Your task to perform on an android device: Open the Play Movies app and select the watchlist tab. Image 0: 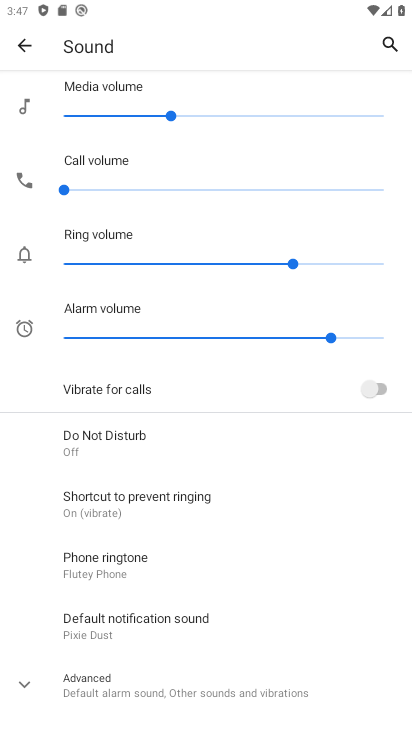
Step 0: drag from (205, 639) to (255, 320)
Your task to perform on an android device: Open the Play Movies app and select the watchlist tab. Image 1: 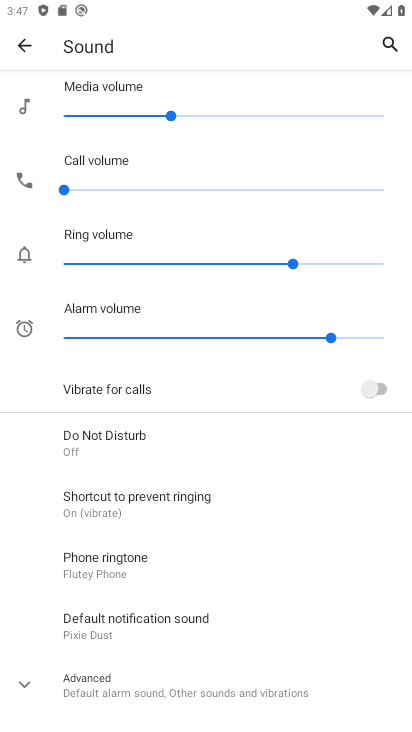
Step 1: press home button
Your task to perform on an android device: Open the Play Movies app and select the watchlist tab. Image 2: 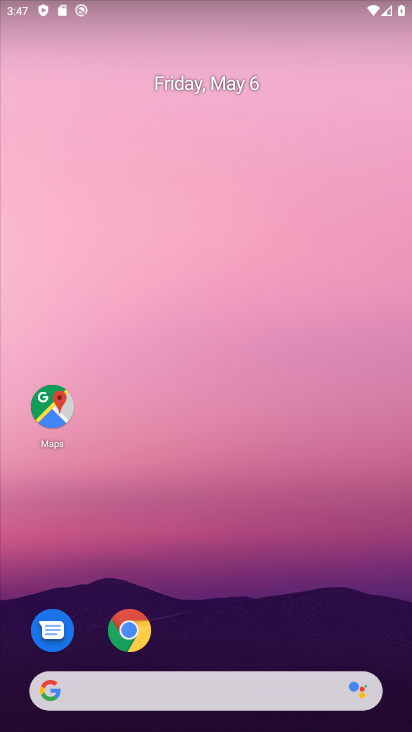
Step 2: drag from (219, 643) to (291, 117)
Your task to perform on an android device: Open the Play Movies app and select the watchlist tab. Image 3: 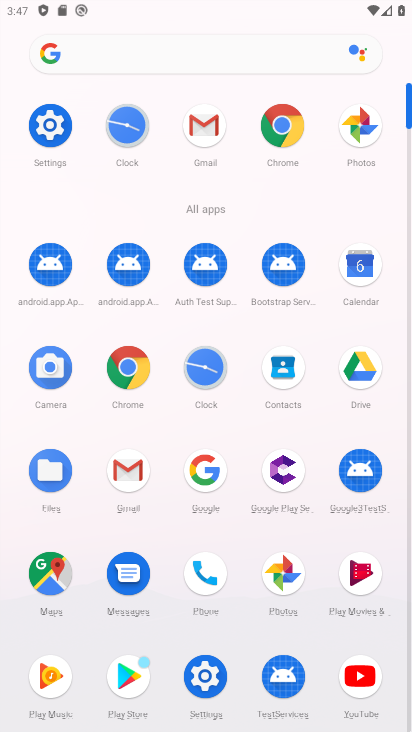
Step 3: click (359, 581)
Your task to perform on an android device: Open the Play Movies app and select the watchlist tab. Image 4: 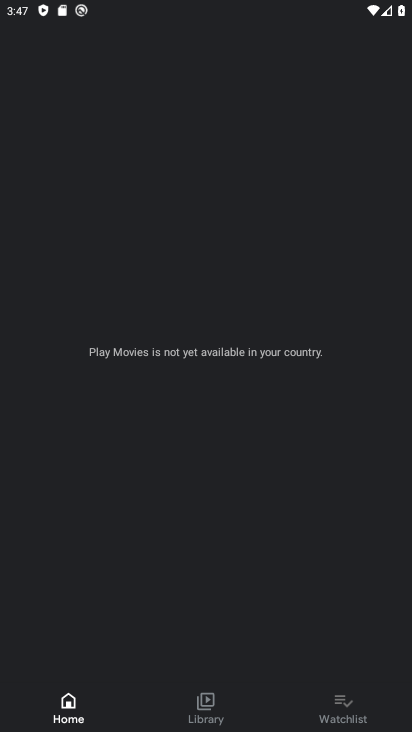
Step 4: click (343, 705)
Your task to perform on an android device: Open the Play Movies app and select the watchlist tab. Image 5: 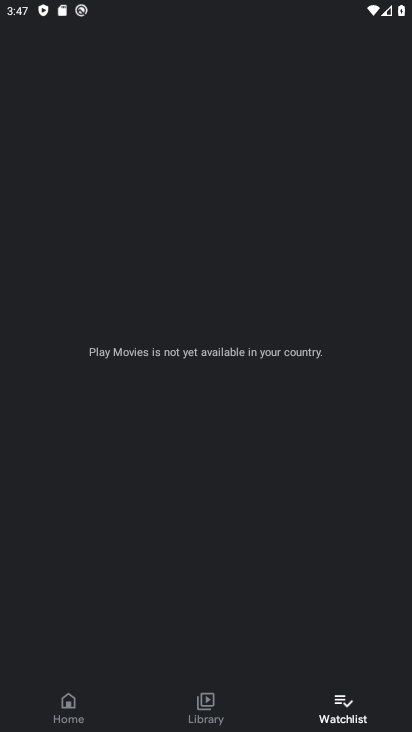
Step 5: task complete